Your task to perform on an android device: toggle pop-ups in chrome Image 0: 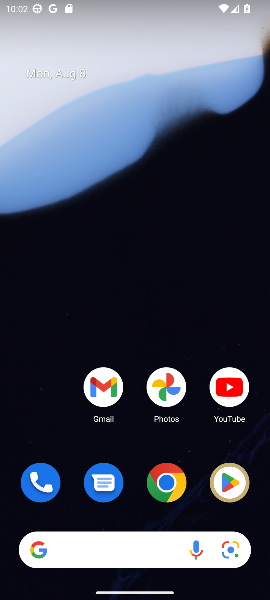
Step 0: drag from (102, 446) to (183, 18)
Your task to perform on an android device: toggle pop-ups in chrome Image 1: 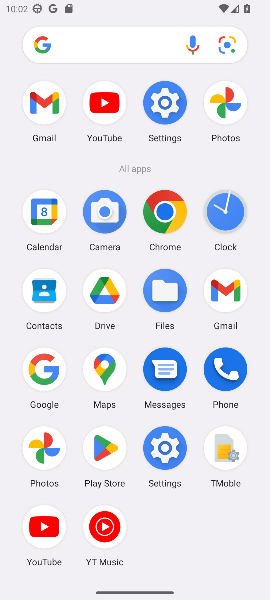
Step 1: click (159, 217)
Your task to perform on an android device: toggle pop-ups in chrome Image 2: 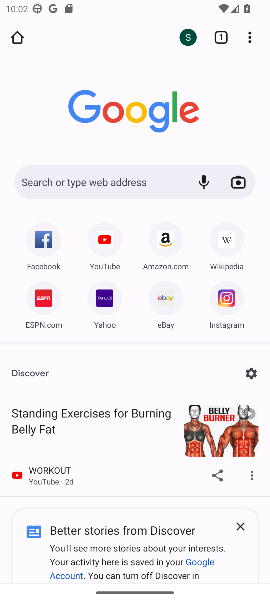
Step 2: click (252, 35)
Your task to perform on an android device: toggle pop-ups in chrome Image 3: 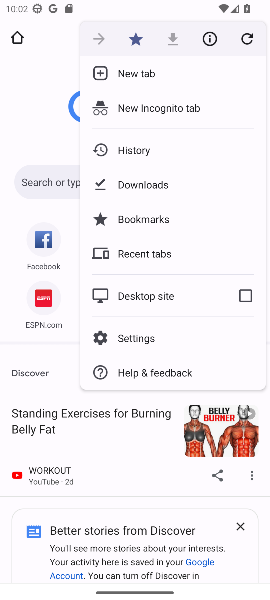
Step 3: click (125, 338)
Your task to perform on an android device: toggle pop-ups in chrome Image 4: 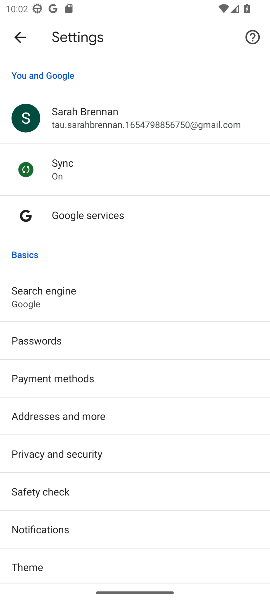
Step 4: drag from (46, 563) to (44, 209)
Your task to perform on an android device: toggle pop-ups in chrome Image 5: 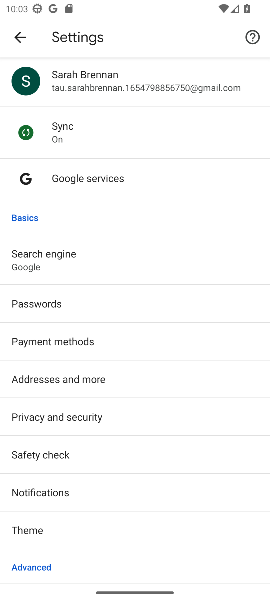
Step 5: drag from (100, 435) to (145, 59)
Your task to perform on an android device: toggle pop-ups in chrome Image 6: 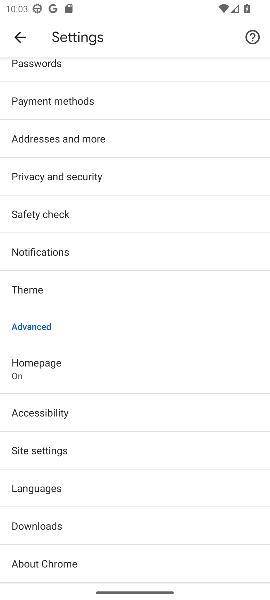
Step 6: click (61, 449)
Your task to perform on an android device: toggle pop-ups in chrome Image 7: 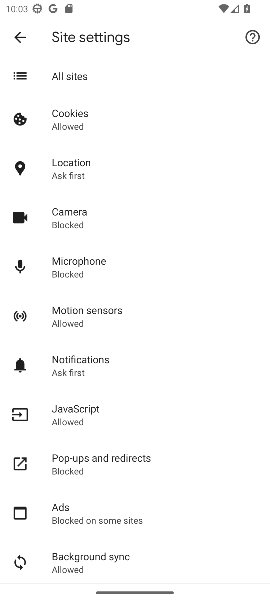
Step 7: click (130, 453)
Your task to perform on an android device: toggle pop-ups in chrome Image 8: 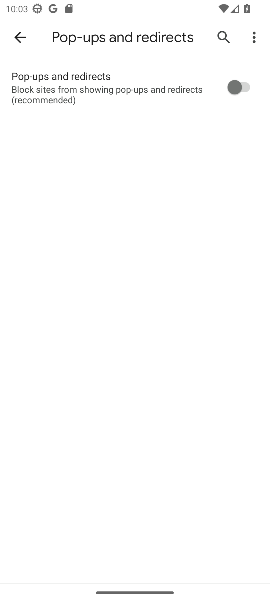
Step 8: click (246, 87)
Your task to perform on an android device: toggle pop-ups in chrome Image 9: 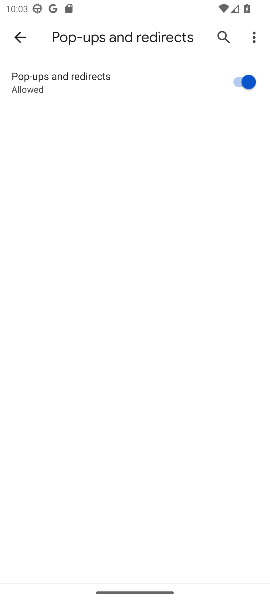
Step 9: task complete